Your task to perform on an android device: Open Google Chrome and click the shortcut for Amazon.com Image 0: 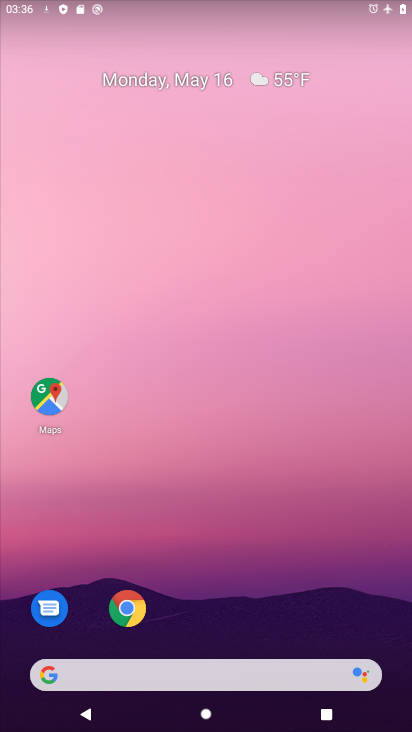
Step 0: click (122, 616)
Your task to perform on an android device: Open Google Chrome and click the shortcut for Amazon.com Image 1: 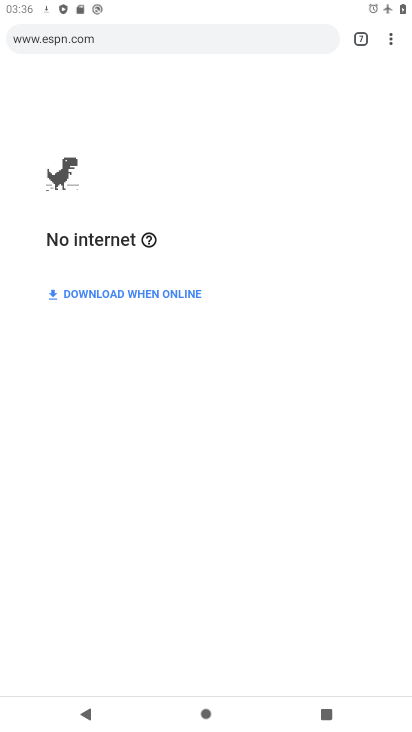
Step 1: click (361, 40)
Your task to perform on an android device: Open Google Chrome and click the shortcut for Amazon.com Image 2: 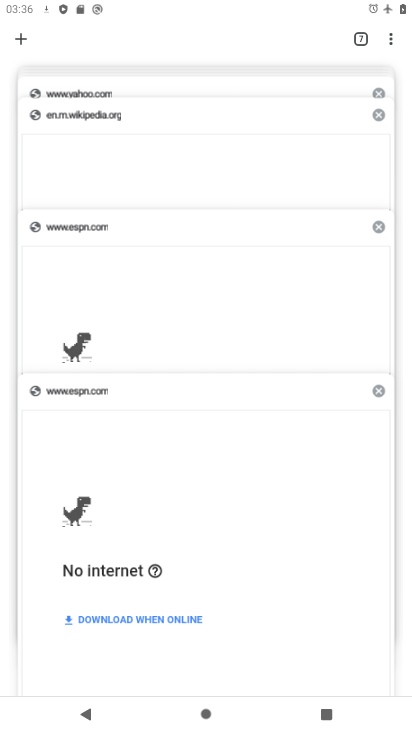
Step 2: click (28, 40)
Your task to perform on an android device: Open Google Chrome and click the shortcut for Amazon.com Image 3: 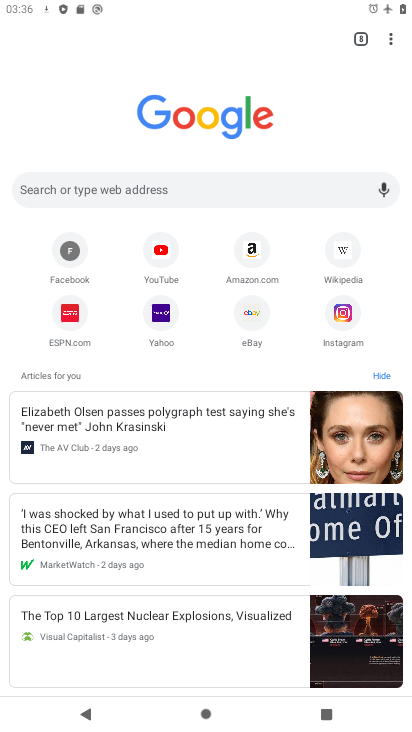
Step 3: click (254, 258)
Your task to perform on an android device: Open Google Chrome and click the shortcut for Amazon.com Image 4: 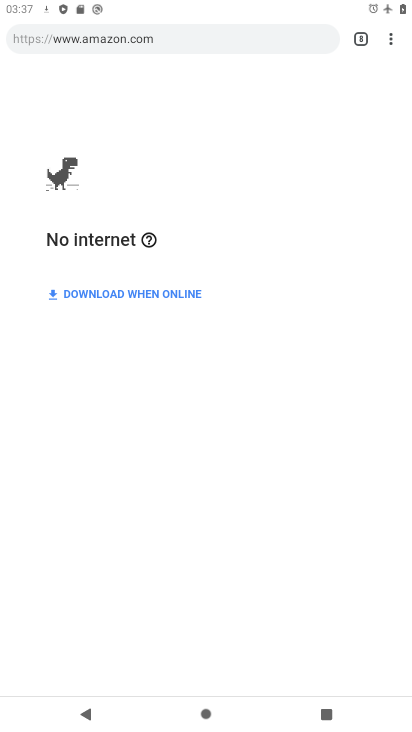
Step 4: task complete